Your task to perform on an android device: change text size in settings app Image 0: 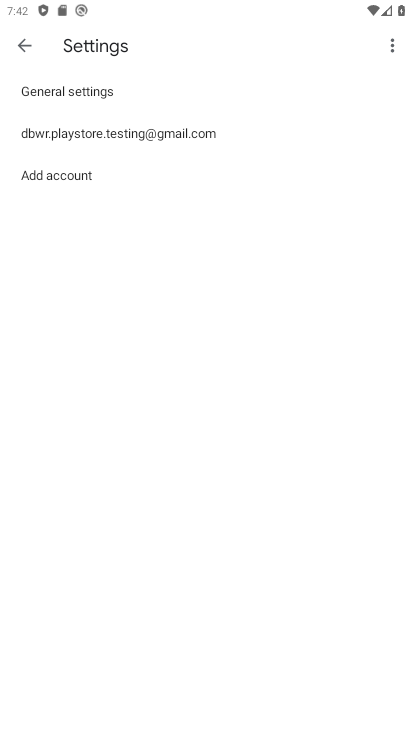
Step 0: press back button
Your task to perform on an android device: change text size in settings app Image 1: 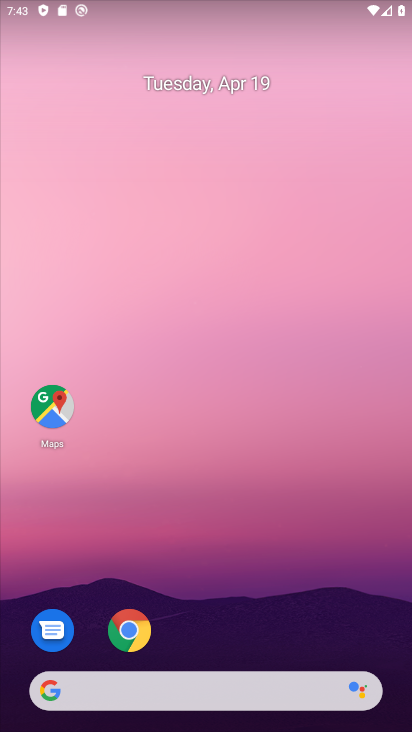
Step 1: drag from (260, 513) to (212, 19)
Your task to perform on an android device: change text size in settings app Image 2: 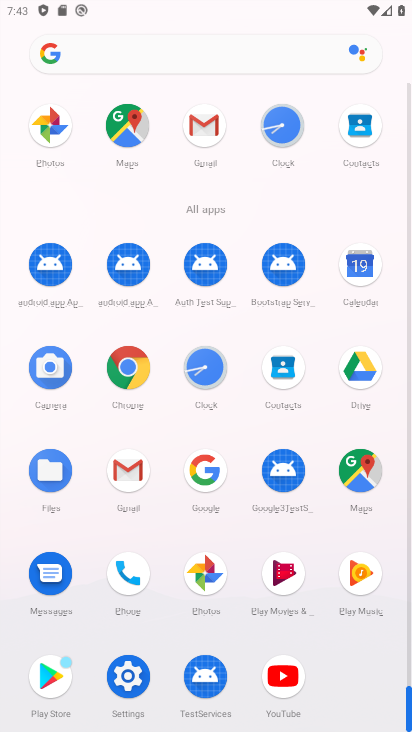
Step 2: click (126, 673)
Your task to perform on an android device: change text size in settings app Image 3: 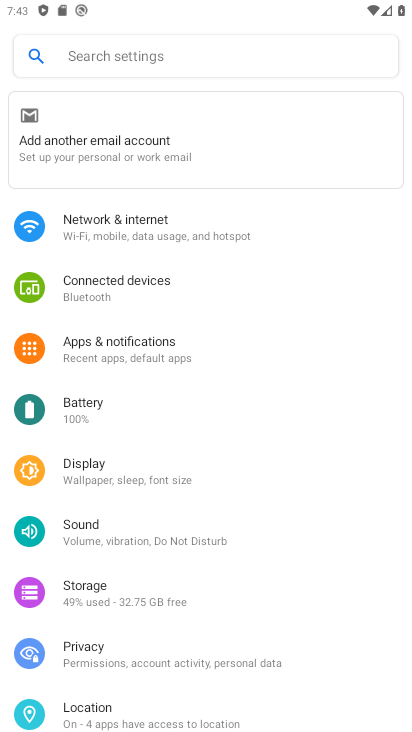
Step 3: click (111, 467)
Your task to perform on an android device: change text size in settings app Image 4: 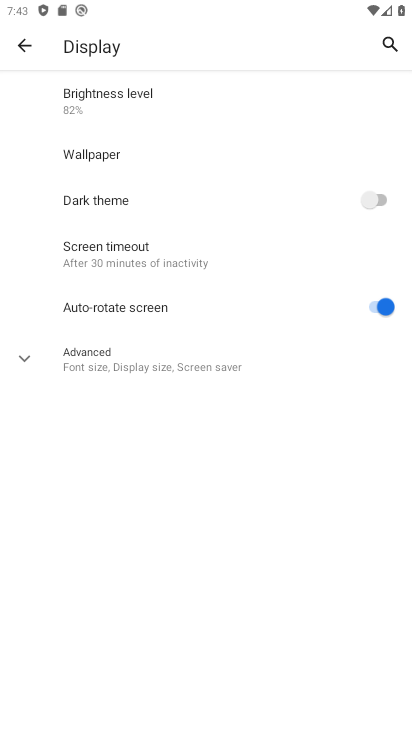
Step 4: click (177, 360)
Your task to perform on an android device: change text size in settings app Image 5: 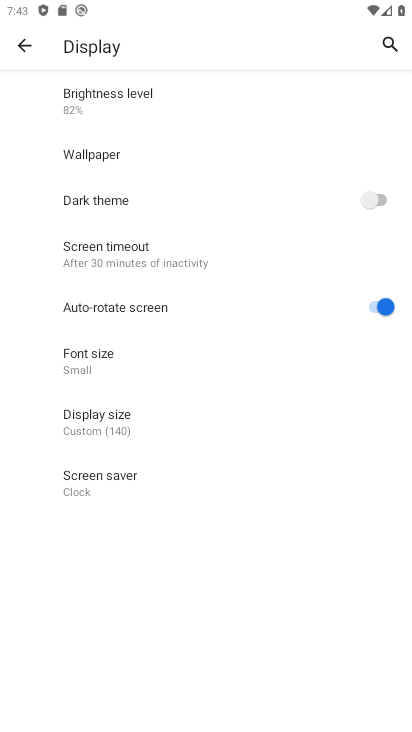
Step 5: click (137, 364)
Your task to perform on an android device: change text size in settings app Image 6: 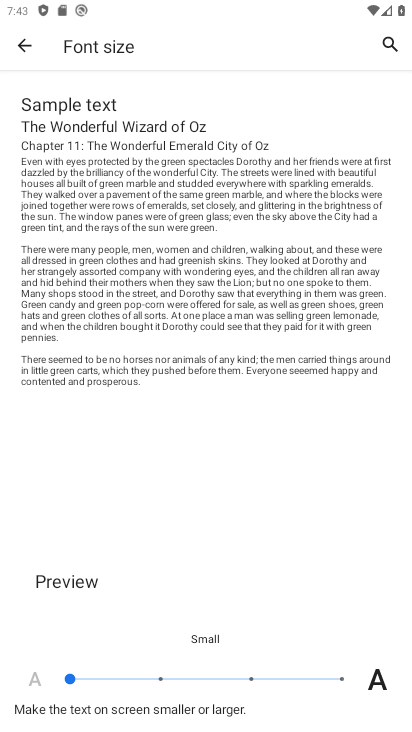
Step 6: click (166, 672)
Your task to perform on an android device: change text size in settings app Image 7: 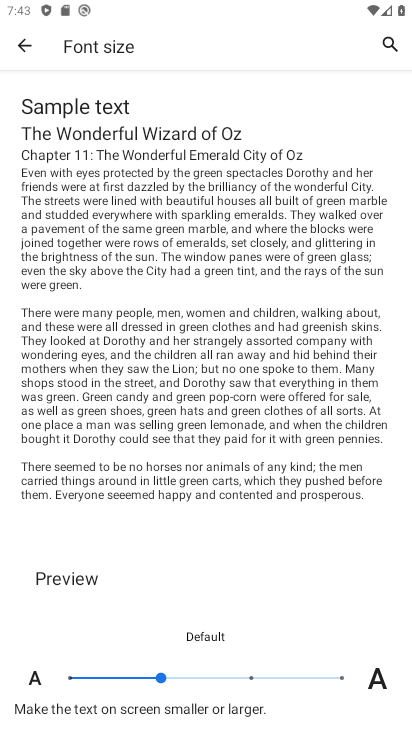
Step 7: click (234, 682)
Your task to perform on an android device: change text size in settings app Image 8: 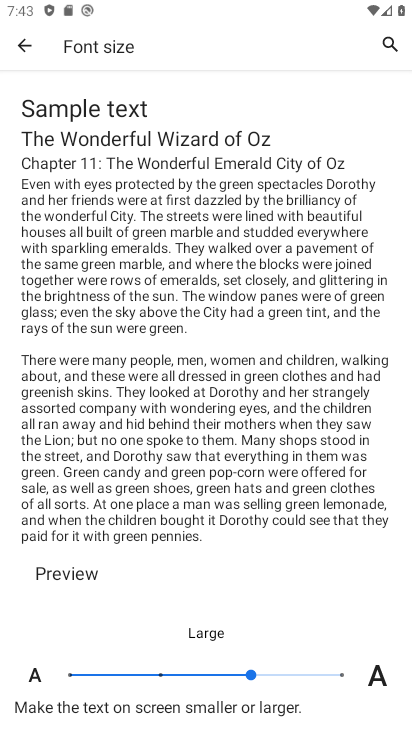
Step 8: task complete